Your task to perform on an android device: Open Youtube and go to the subscriptions tab Image 0: 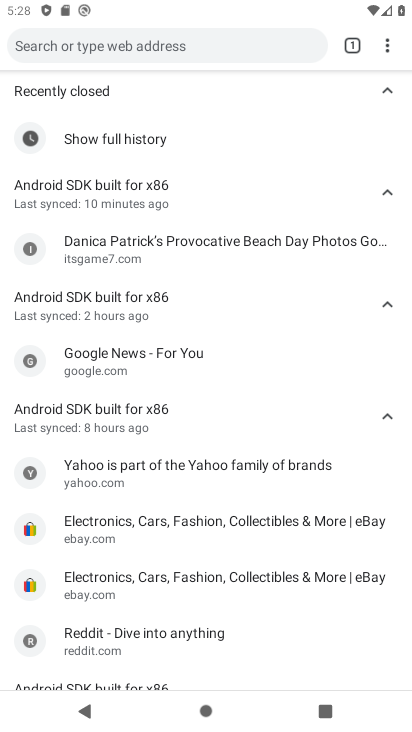
Step 0: press home button
Your task to perform on an android device: Open Youtube and go to the subscriptions tab Image 1: 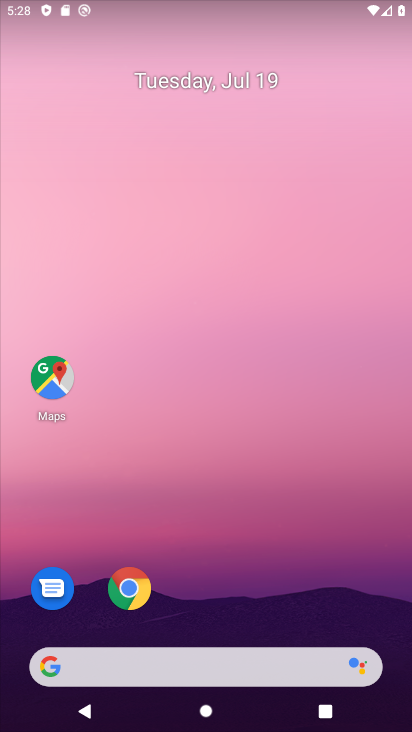
Step 1: drag from (209, 613) to (105, 86)
Your task to perform on an android device: Open Youtube and go to the subscriptions tab Image 2: 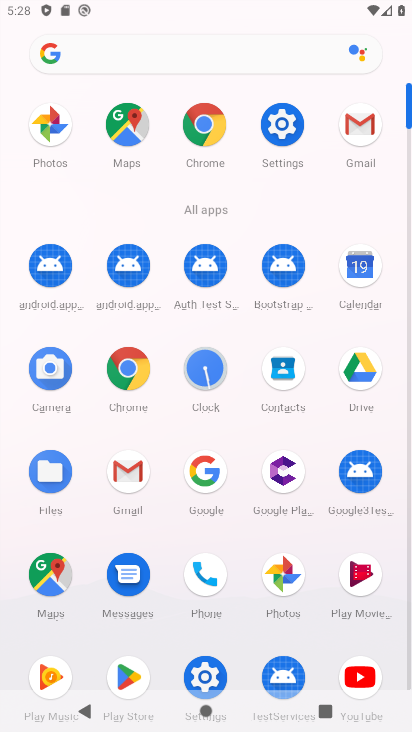
Step 2: click (365, 677)
Your task to perform on an android device: Open Youtube and go to the subscriptions tab Image 3: 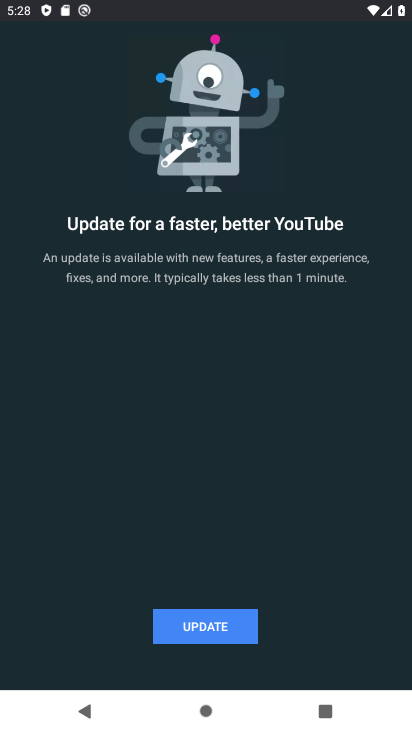
Step 3: click (224, 614)
Your task to perform on an android device: Open Youtube and go to the subscriptions tab Image 4: 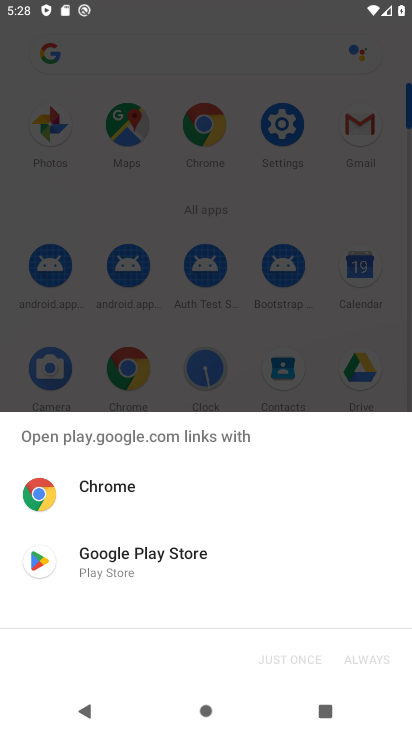
Step 4: click (231, 583)
Your task to perform on an android device: Open Youtube and go to the subscriptions tab Image 5: 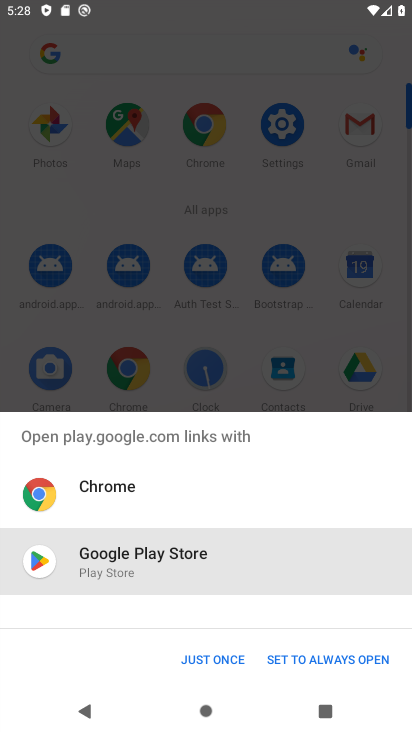
Step 5: click (226, 655)
Your task to perform on an android device: Open Youtube and go to the subscriptions tab Image 6: 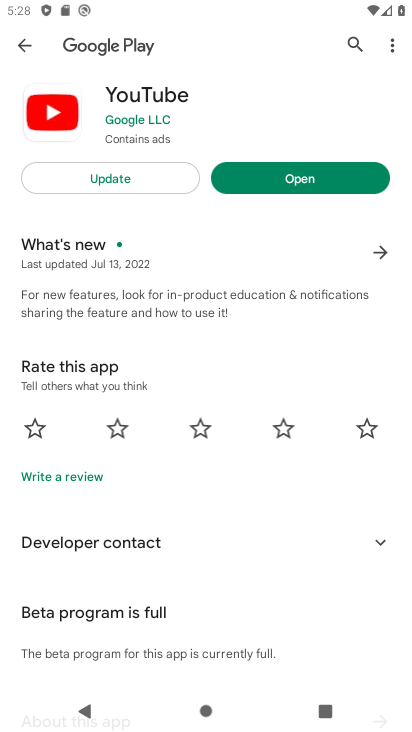
Step 6: click (295, 175)
Your task to perform on an android device: Open Youtube and go to the subscriptions tab Image 7: 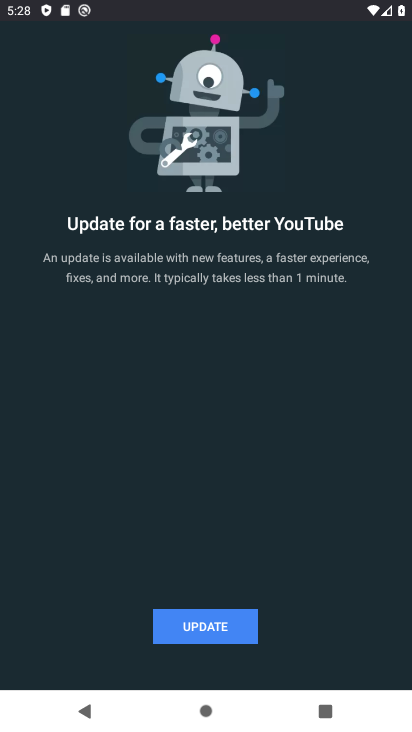
Step 7: click (144, 179)
Your task to perform on an android device: Open Youtube and go to the subscriptions tab Image 8: 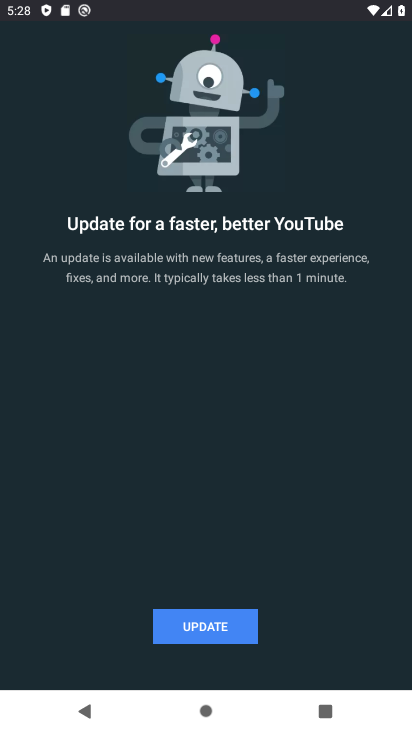
Step 8: press back button
Your task to perform on an android device: Open Youtube and go to the subscriptions tab Image 9: 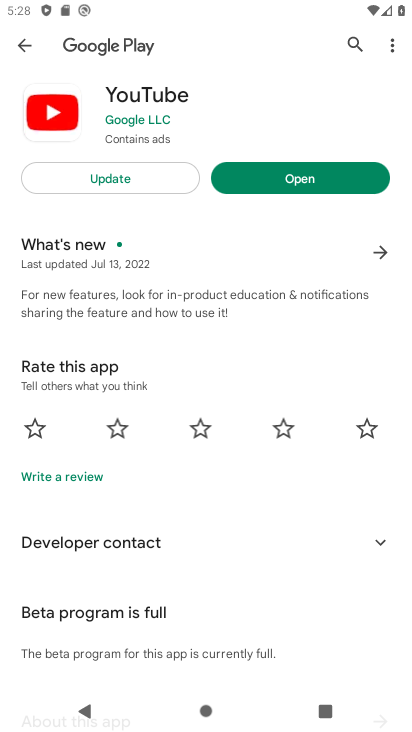
Step 9: click (109, 186)
Your task to perform on an android device: Open Youtube and go to the subscriptions tab Image 10: 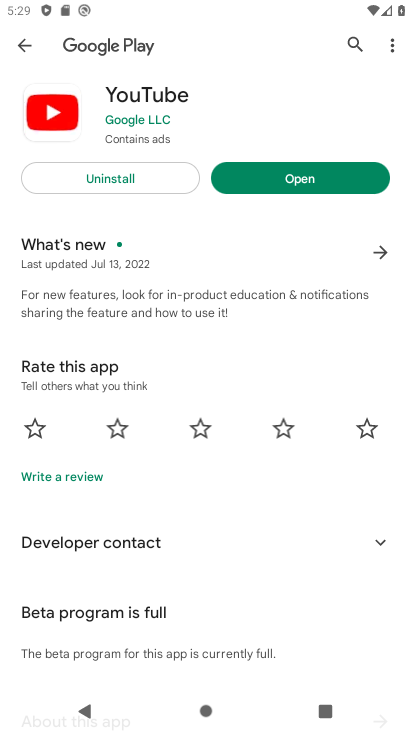
Step 10: click (307, 174)
Your task to perform on an android device: Open Youtube and go to the subscriptions tab Image 11: 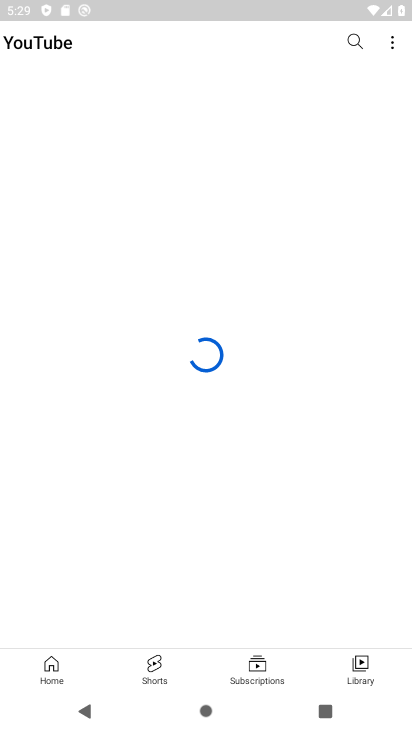
Step 11: click (251, 686)
Your task to perform on an android device: Open Youtube and go to the subscriptions tab Image 12: 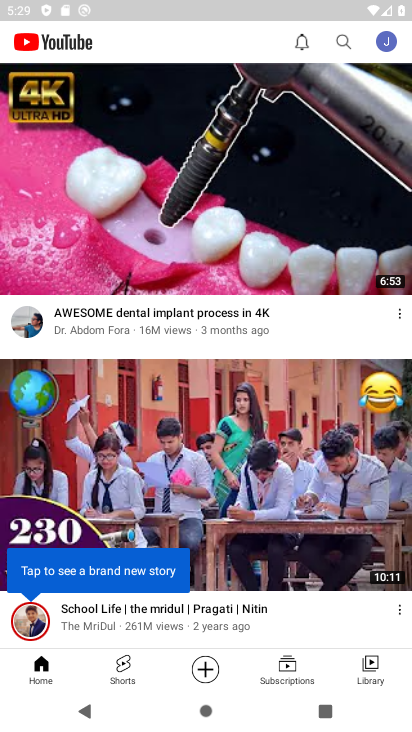
Step 12: click (296, 672)
Your task to perform on an android device: Open Youtube and go to the subscriptions tab Image 13: 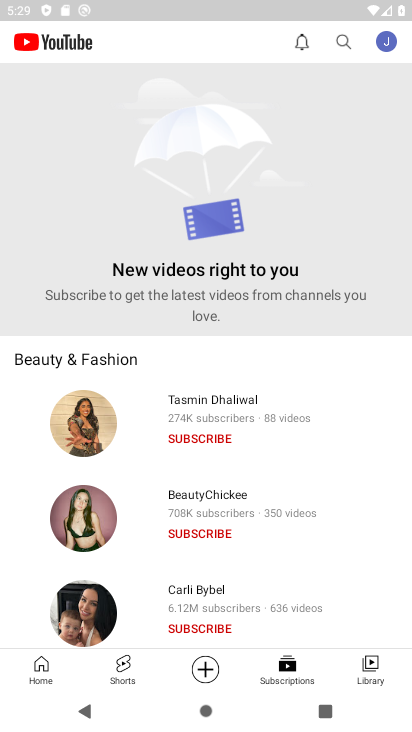
Step 13: task complete